Your task to perform on an android device: open device folders in google photos Image 0: 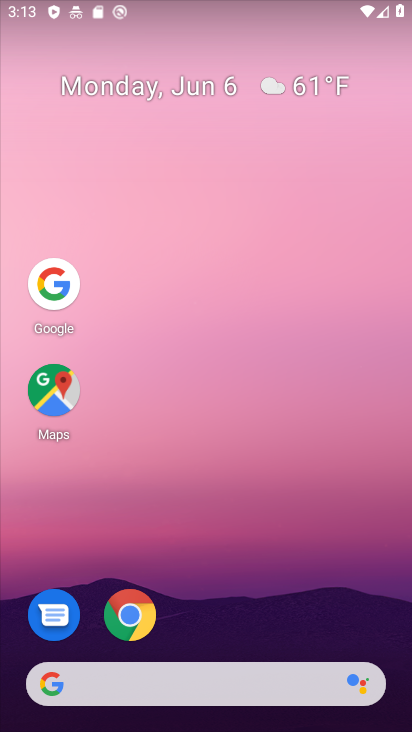
Step 0: press home button
Your task to perform on an android device: open device folders in google photos Image 1: 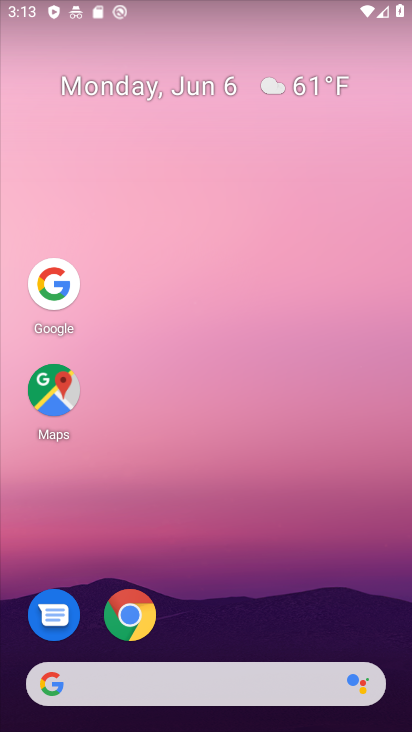
Step 1: drag from (261, 476) to (298, 87)
Your task to perform on an android device: open device folders in google photos Image 2: 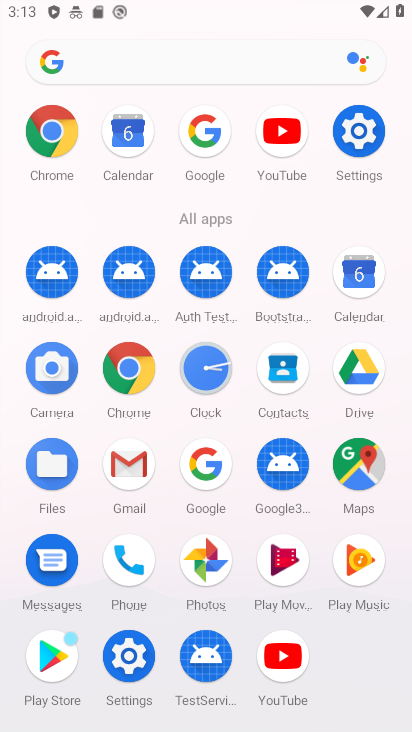
Step 2: click (210, 573)
Your task to perform on an android device: open device folders in google photos Image 3: 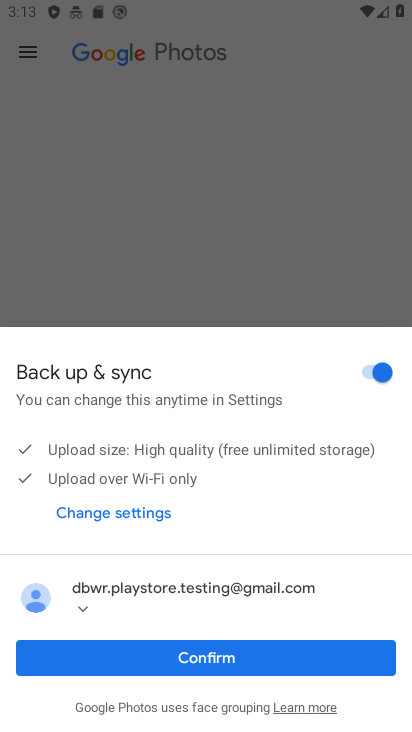
Step 3: click (37, 48)
Your task to perform on an android device: open device folders in google photos Image 4: 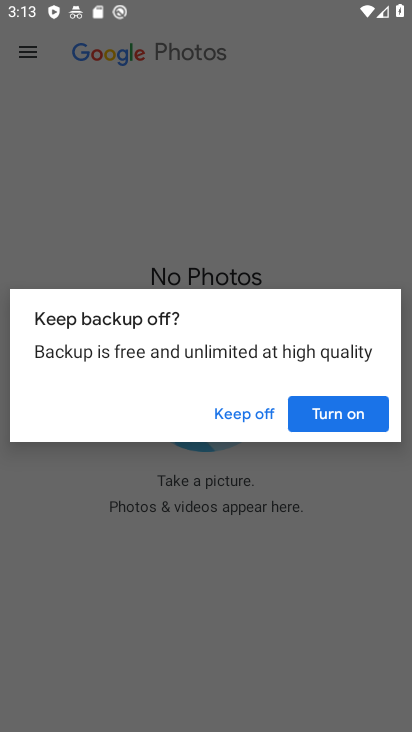
Step 4: click (343, 422)
Your task to perform on an android device: open device folders in google photos Image 5: 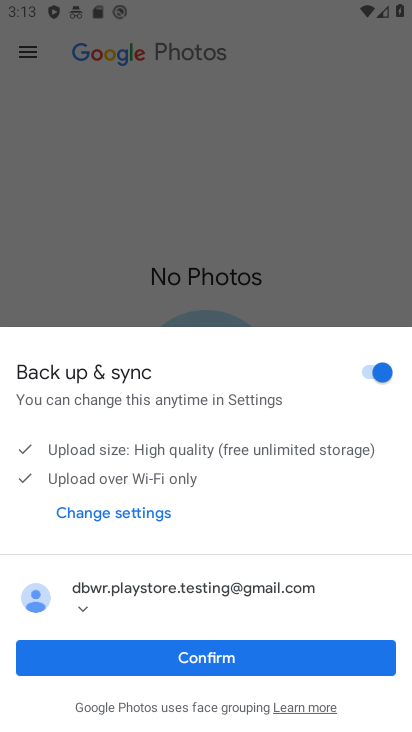
Step 5: click (220, 641)
Your task to perform on an android device: open device folders in google photos Image 6: 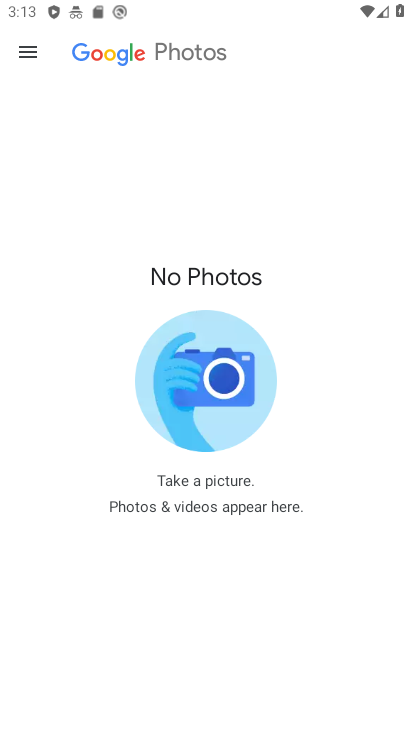
Step 6: click (8, 32)
Your task to perform on an android device: open device folders in google photos Image 7: 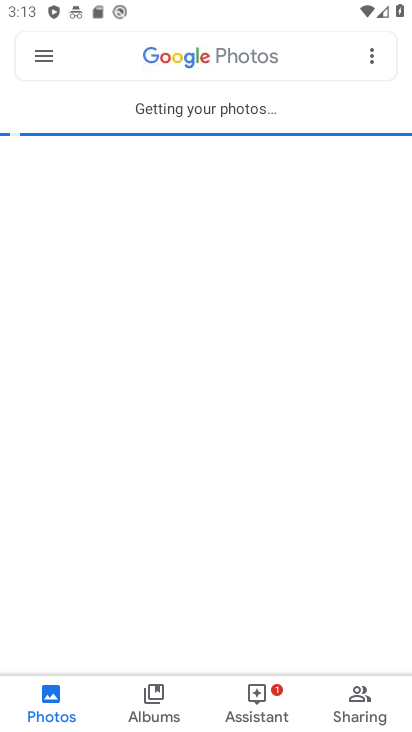
Step 7: click (34, 69)
Your task to perform on an android device: open device folders in google photos Image 8: 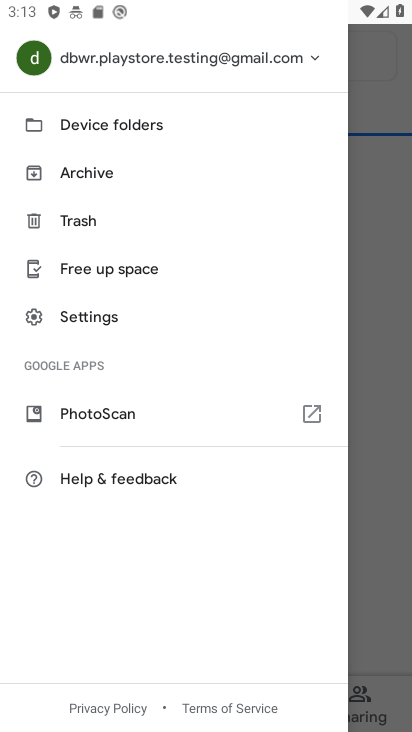
Step 8: click (124, 110)
Your task to perform on an android device: open device folders in google photos Image 9: 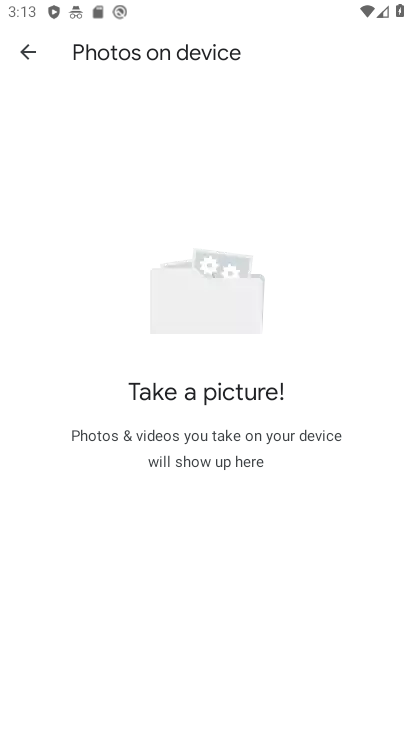
Step 9: task complete